Your task to perform on an android device: refresh tabs in the chrome app Image 0: 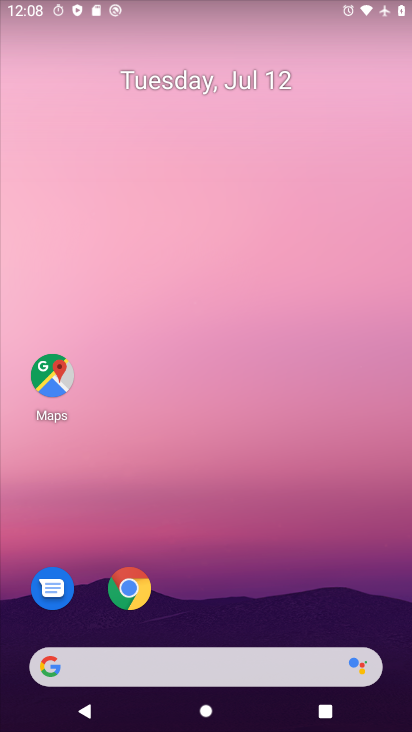
Step 0: click (124, 598)
Your task to perform on an android device: refresh tabs in the chrome app Image 1: 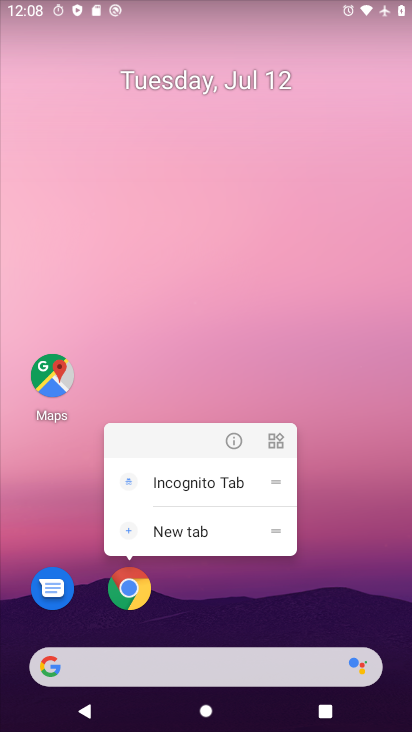
Step 1: click (122, 596)
Your task to perform on an android device: refresh tabs in the chrome app Image 2: 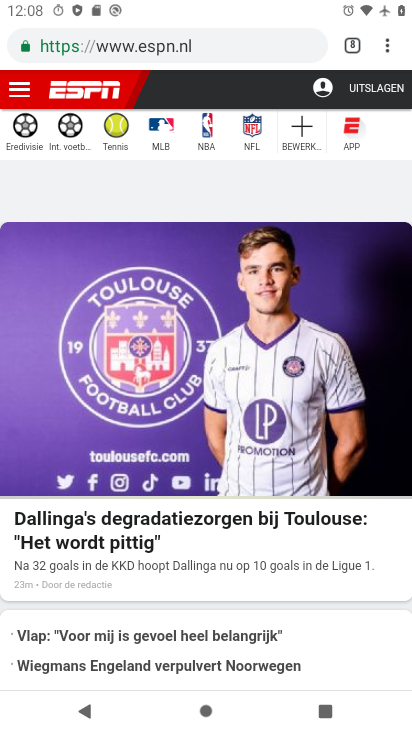
Step 2: click (386, 61)
Your task to perform on an android device: refresh tabs in the chrome app Image 3: 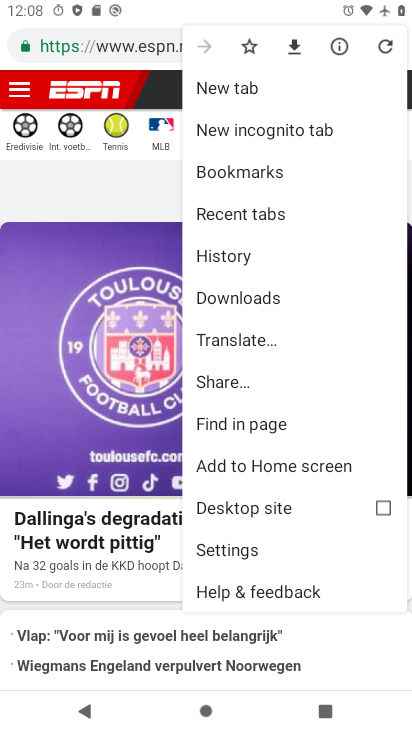
Step 3: click (385, 45)
Your task to perform on an android device: refresh tabs in the chrome app Image 4: 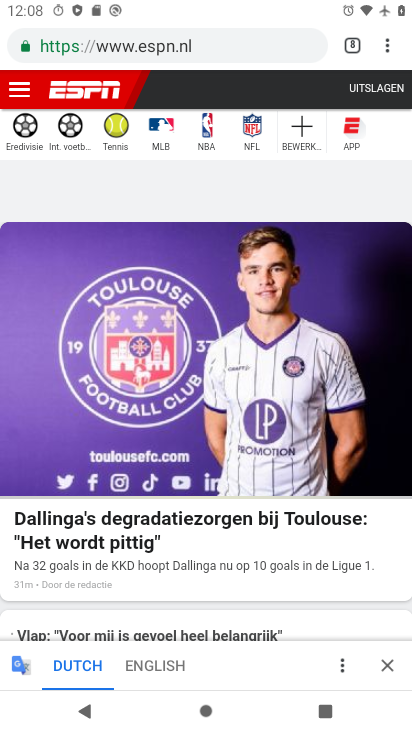
Step 4: task complete